Your task to perform on an android device: Open network settings Image 0: 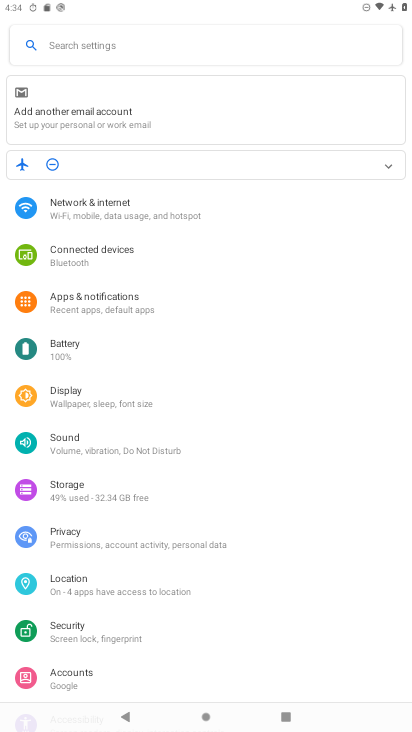
Step 0: click (299, 198)
Your task to perform on an android device: Open network settings Image 1: 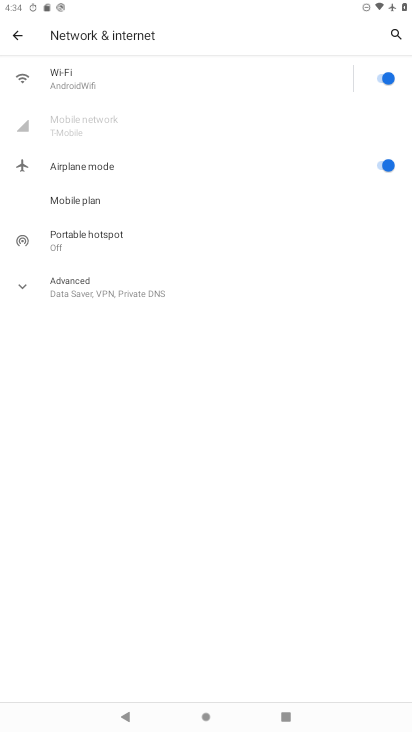
Step 1: task complete